Your task to perform on an android device: Go to calendar. Show me events next week Image 0: 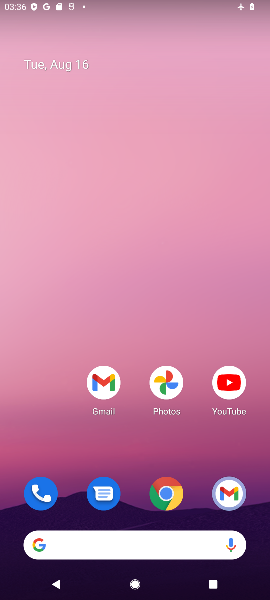
Step 0: press home button
Your task to perform on an android device: Go to calendar. Show me events next week Image 1: 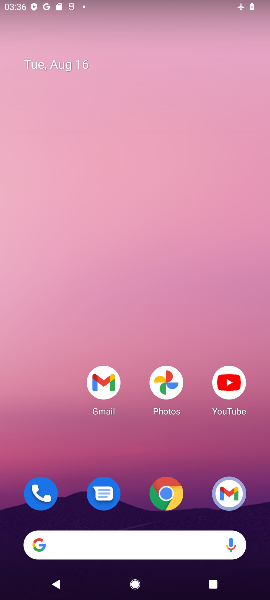
Step 1: drag from (68, 469) to (61, 132)
Your task to perform on an android device: Go to calendar. Show me events next week Image 2: 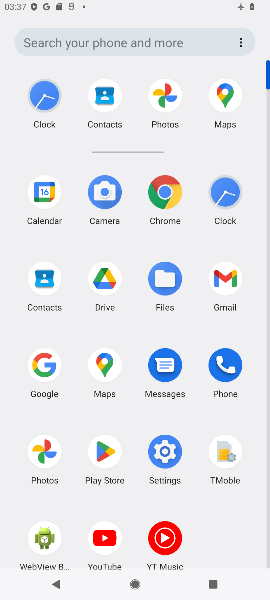
Step 2: click (46, 202)
Your task to perform on an android device: Go to calendar. Show me events next week Image 3: 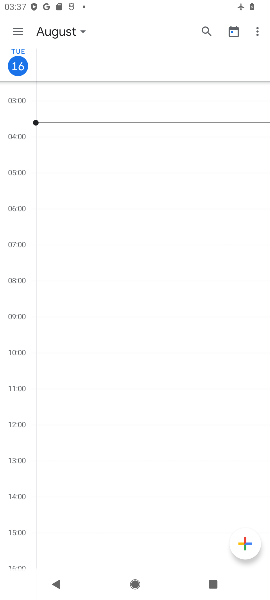
Step 3: click (19, 26)
Your task to perform on an android device: Go to calendar. Show me events next week Image 4: 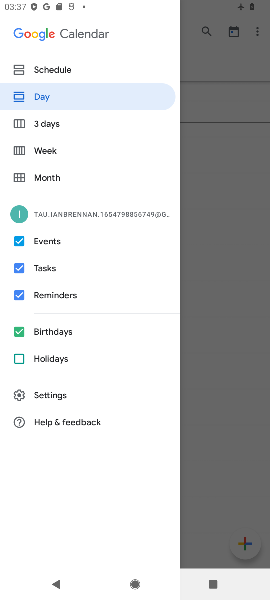
Step 4: click (60, 69)
Your task to perform on an android device: Go to calendar. Show me events next week Image 5: 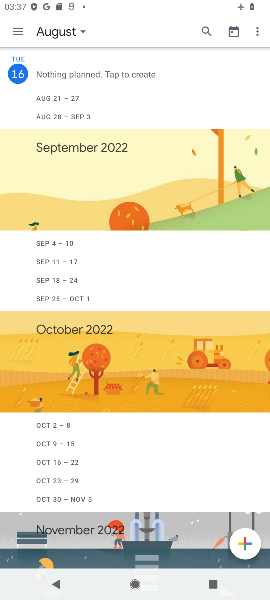
Step 5: click (84, 31)
Your task to perform on an android device: Go to calendar. Show me events next week Image 6: 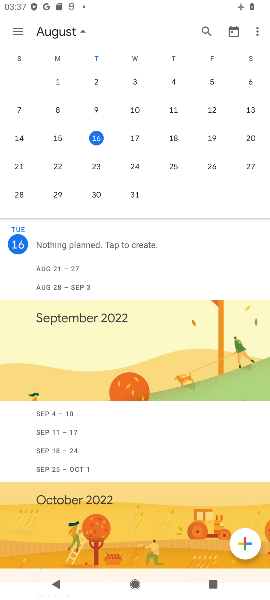
Step 6: click (59, 170)
Your task to perform on an android device: Go to calendar. Show me events next week Image 7: 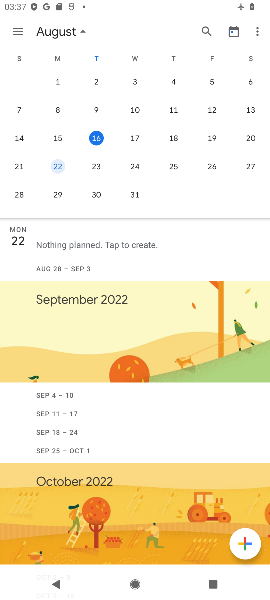
Step 7: task complete